Your task to perform on an android device: toggle improve location accuracy Image 0: 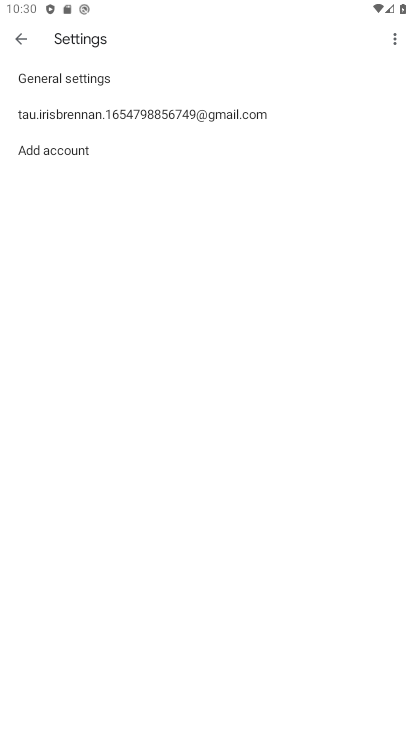
Step 0: press home button
Your task to perform on an android device: toggle improve location accuracy Image 1: 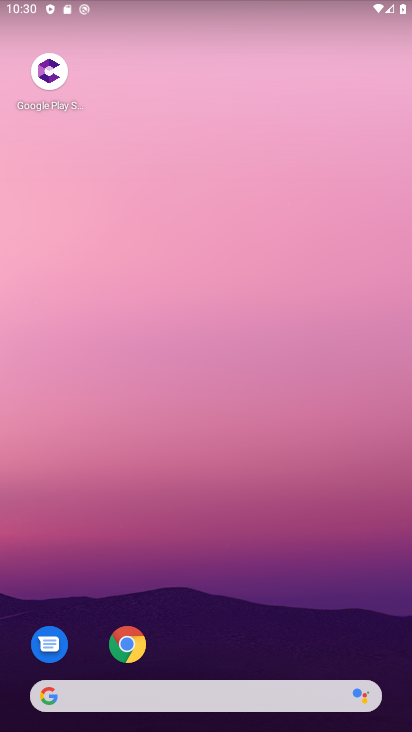
Step 1: drag from (234, 567) to (234, 74)
Your task to perform on an android device: toggle improve location accuracy Image 2: 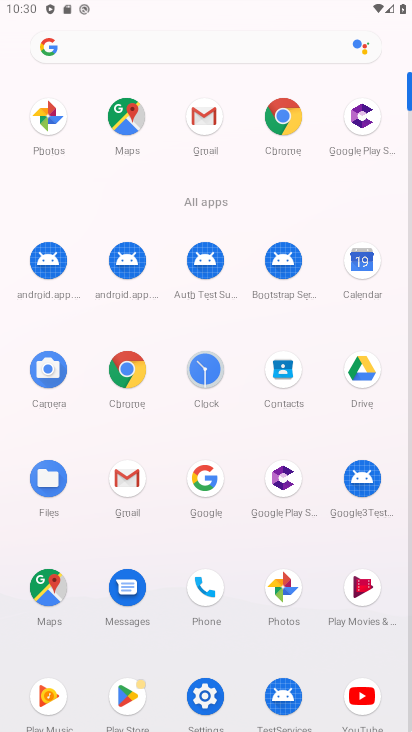
Step 2: click (203, 690)
Your task to perform on an android device: toggle improve location accuracy Image 3: 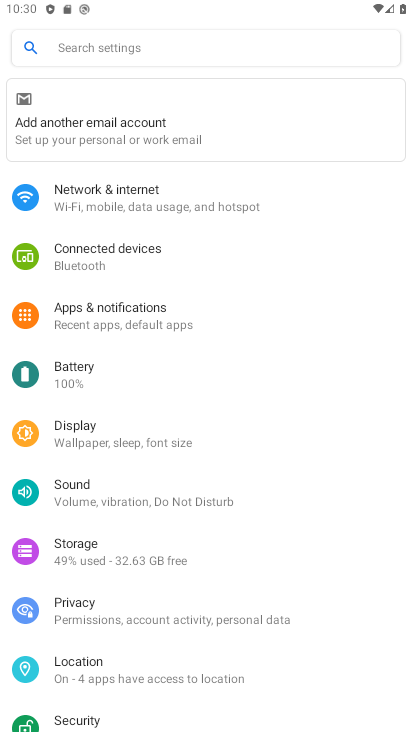
Step 3: click (76, 656)
Your task to perform on an android device: toggle improve location accuracy Image 4: 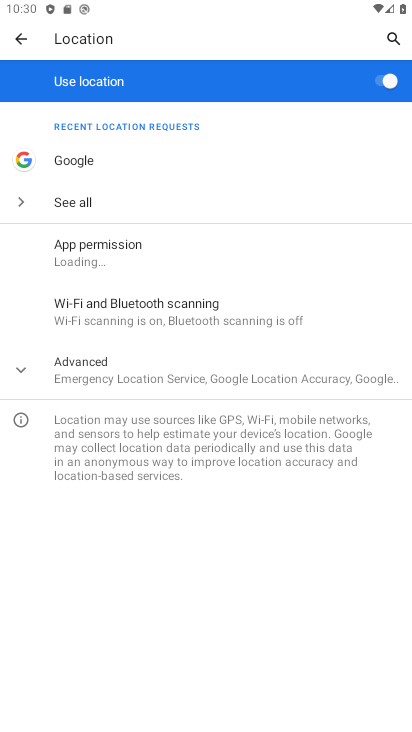
Step 4: click (22, 364)
Your task to perform on an android device: toggle improve location accuracy Image 5: 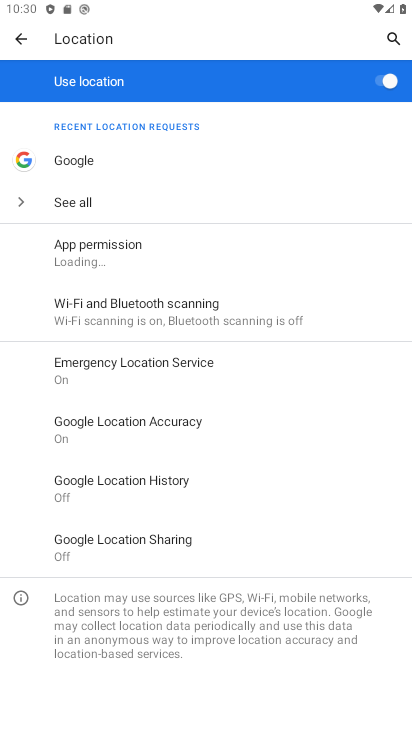
Step 5: click (127, 420)
Your task to perform on an android device: toggle improve location accuracy Image 6: 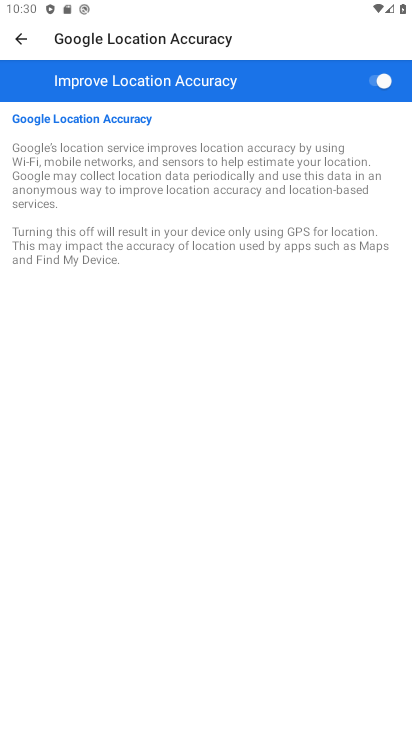
Step 6: click (379, 79)
Your task to perform on an android device: toggle improve location accuracy Image 7: 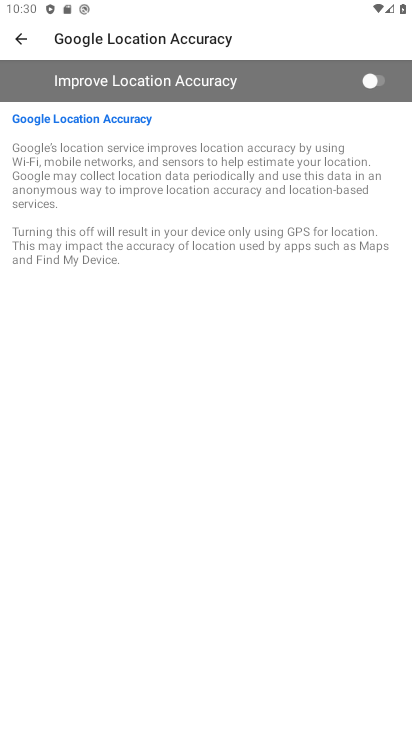
Step 7: task complete